Your task to perform on an android device: check out phone information Image 0: 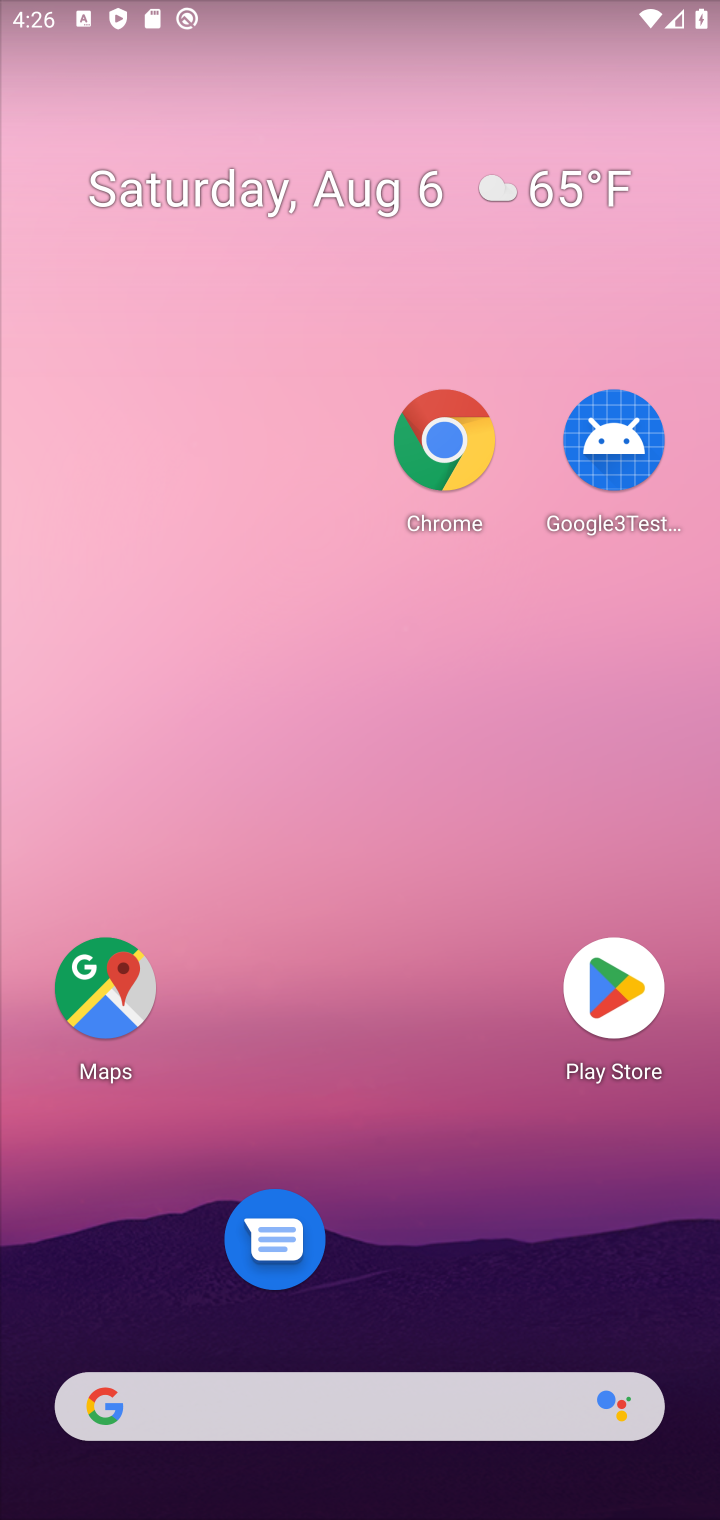
Step 0: drag from (516, 1402) to (589, 322)
Your task to perform on an android device: check out phone information Image 1: 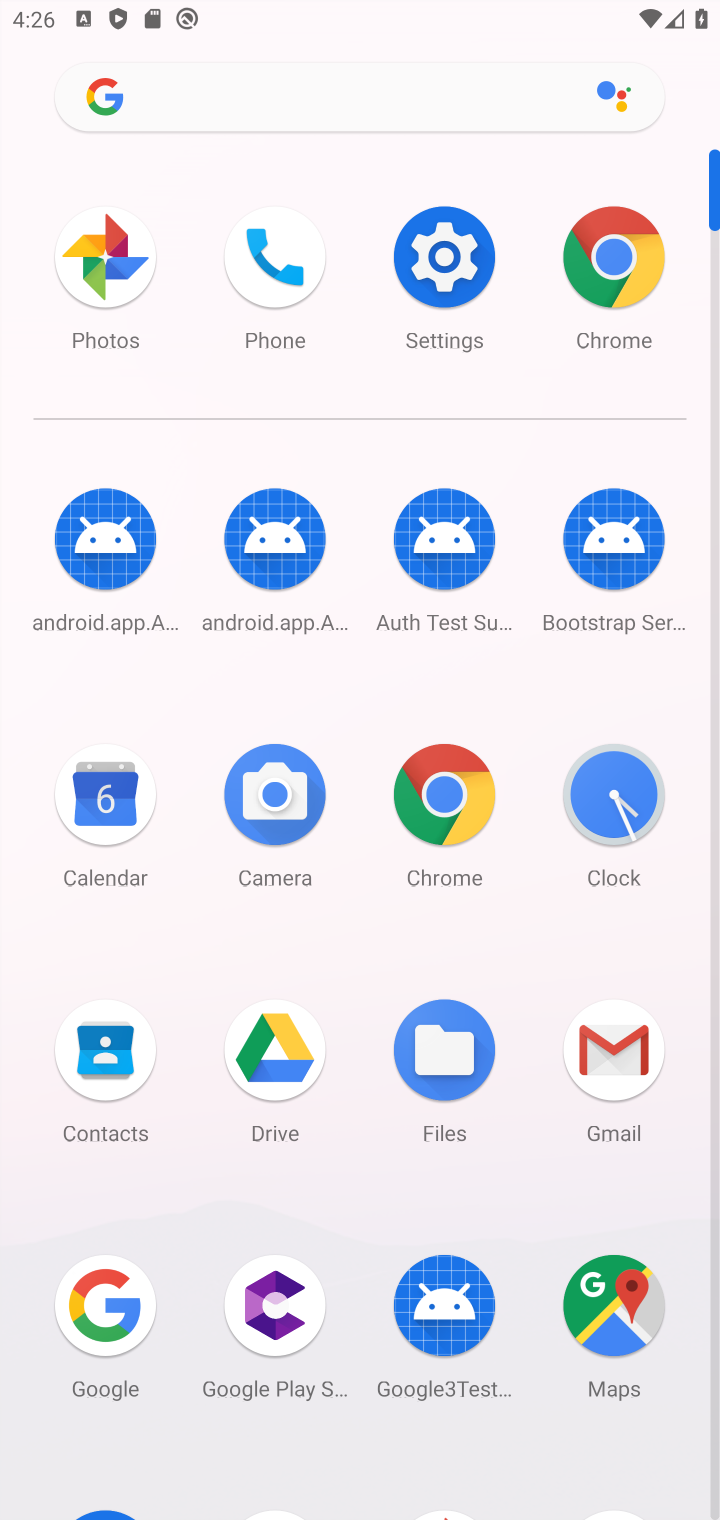
Step 1: click (444, 246)
Your task to perform on an android device: check out phone information Image 2: 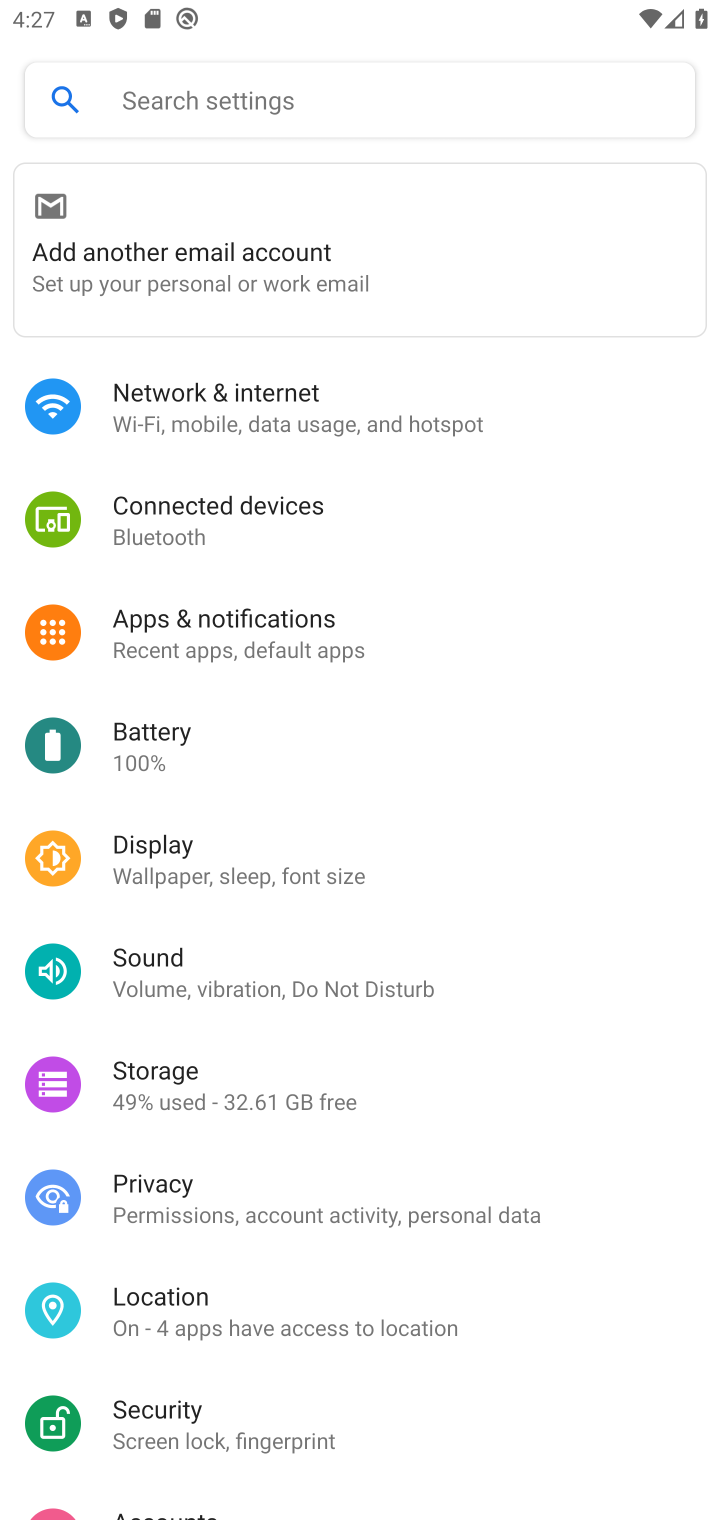
Step 2: drag from (605, 1415) to (639, 463)
Your task to perform on an android device: check out phone information Image 3: 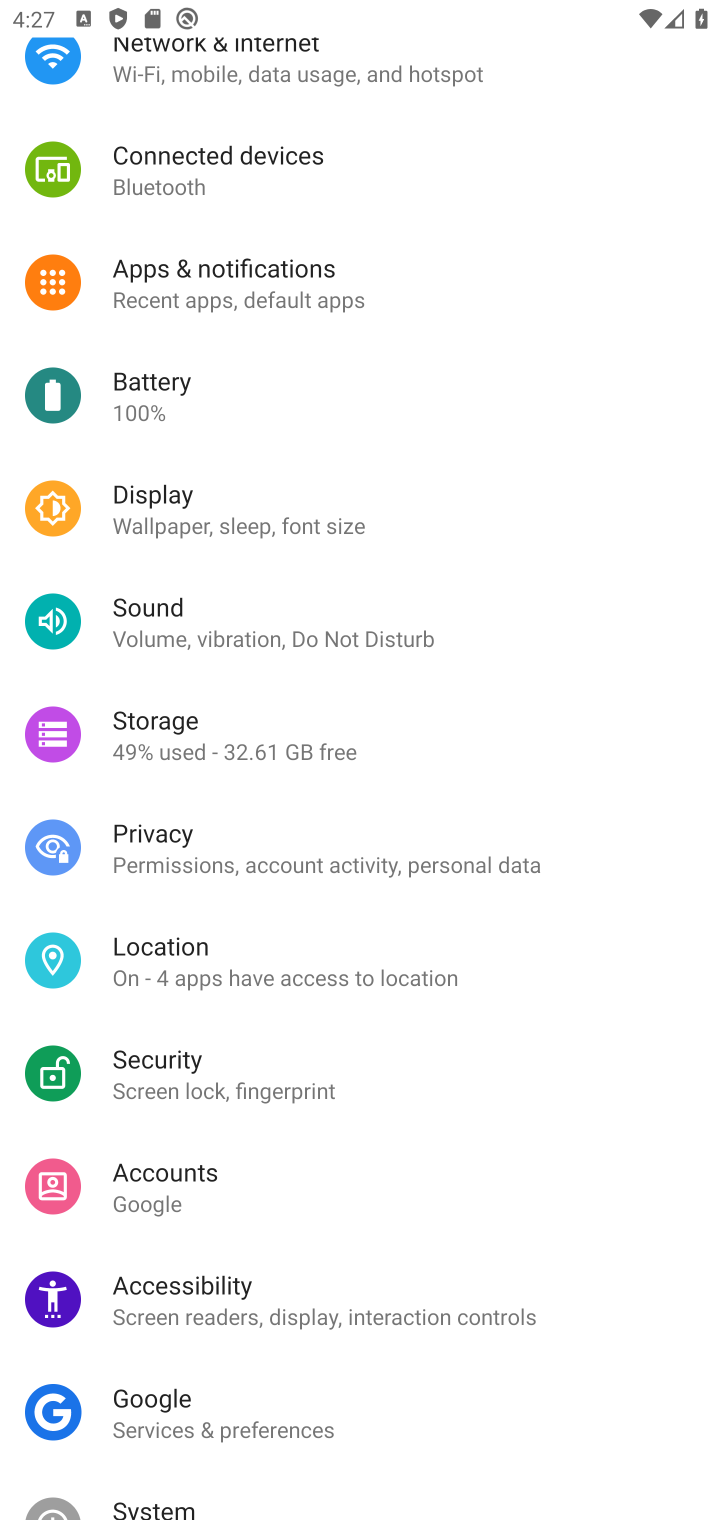
Step 3: drag from (652, 1443) to (681, 420)
Your task to perform on an android device: check out phone information Image 4: 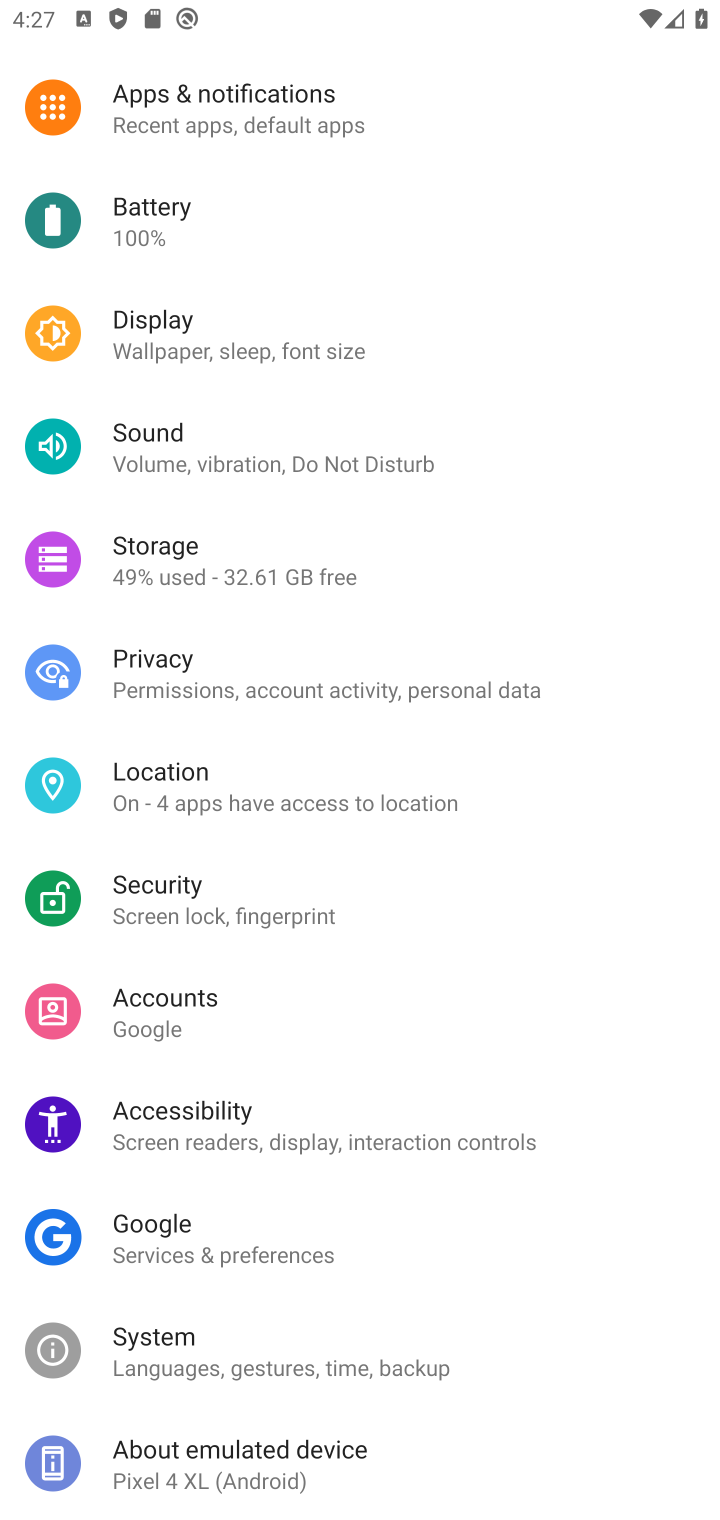
Step 4: click (396, 1497)
Your task to perform on an android device: check out phone information Image 5: 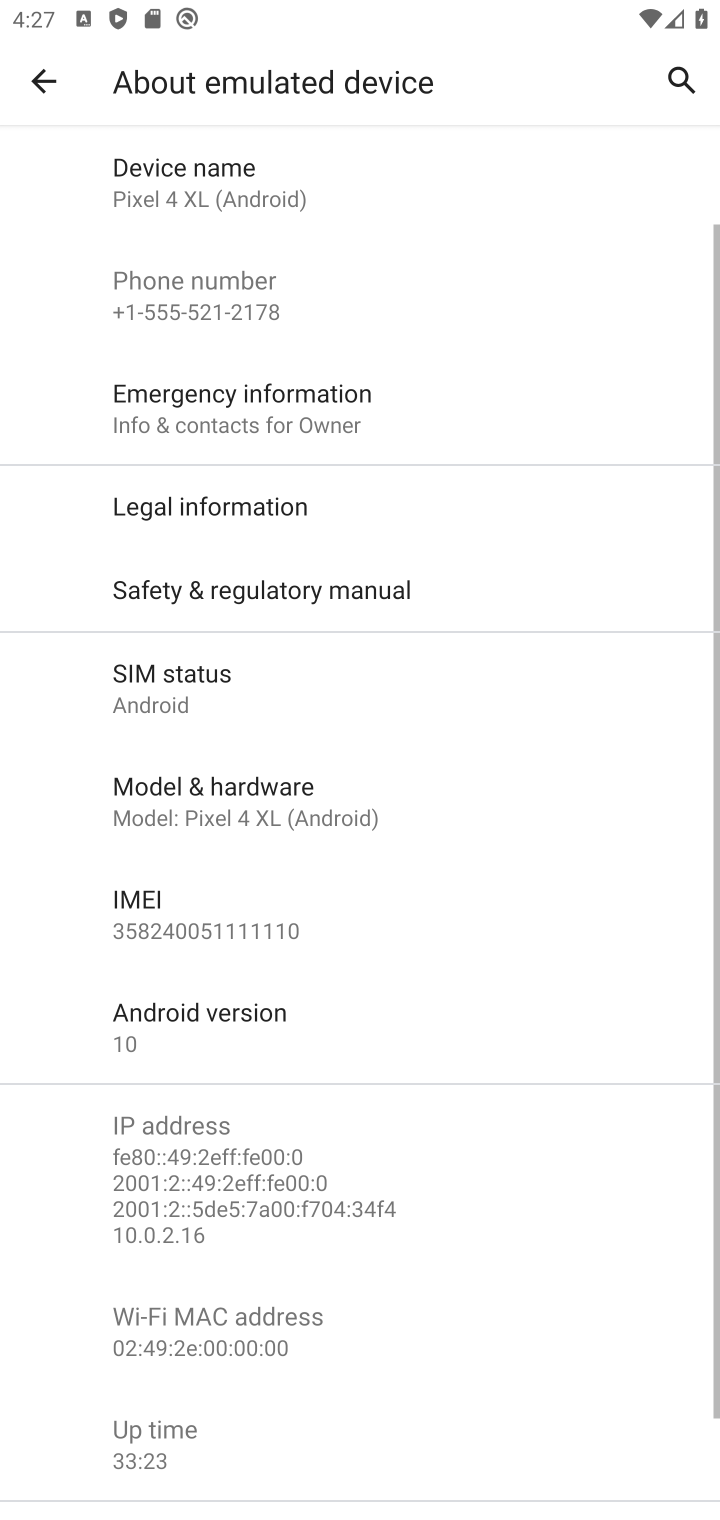
Step 5: task complete